Your task to perform on an android device: see tabs open on other devices in the chrome app Image 0: 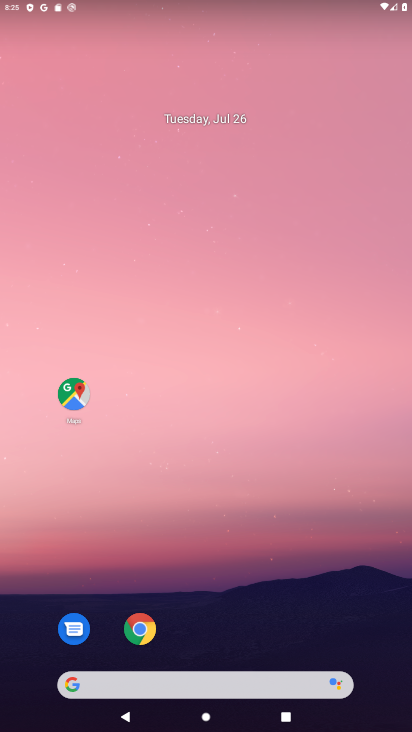
Step 0: press home button
Your task to perform on an android device: see tabs open on other devices in the chrome app Image 1: 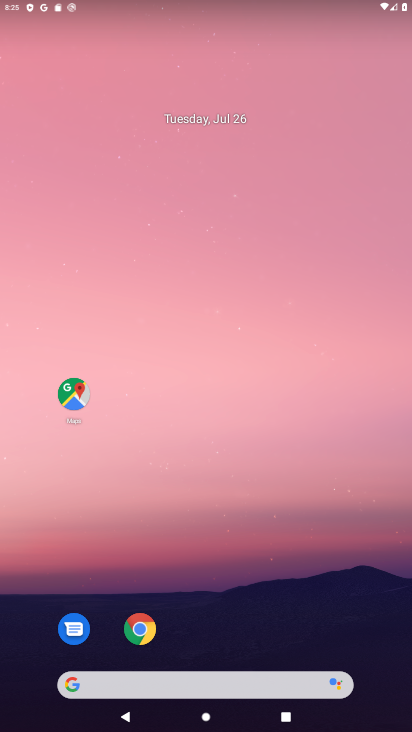
Step 1: drag from (276, 652) to (249, 91)
Your task to perform on an android device: see tabs open on other devices in the chrome app Image 2: 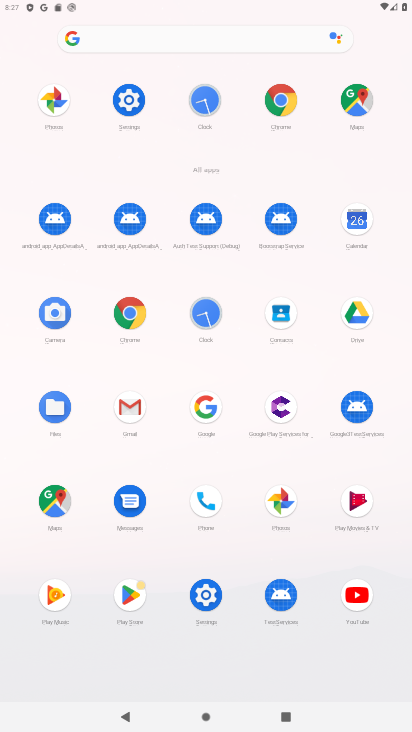
Step 2: click (114, 334)
Your task to perform on an android device: see tabs open on other devices in the chrome app Image 3: 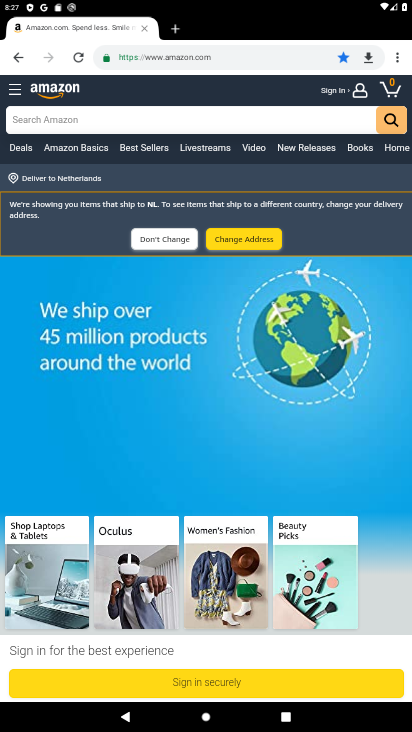
Step 3: task complete